Your task to perform on an android device: add a label to a message in the gmail app Image 0: 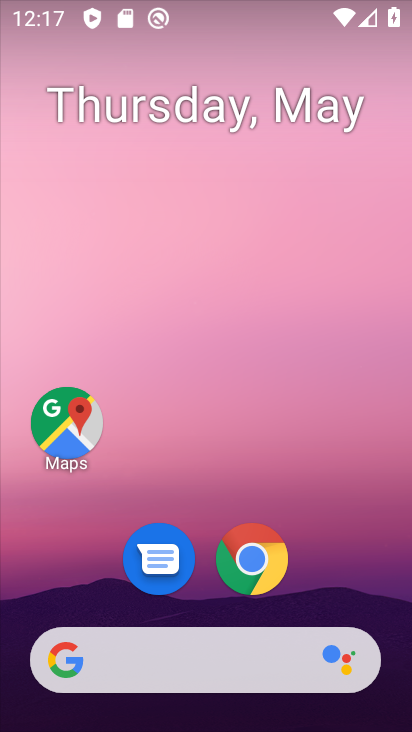
Step 0: drag from (393, 612) to (328, 129)
Your task to perform on an android device: add a label to a message in the gmail app Image 1: 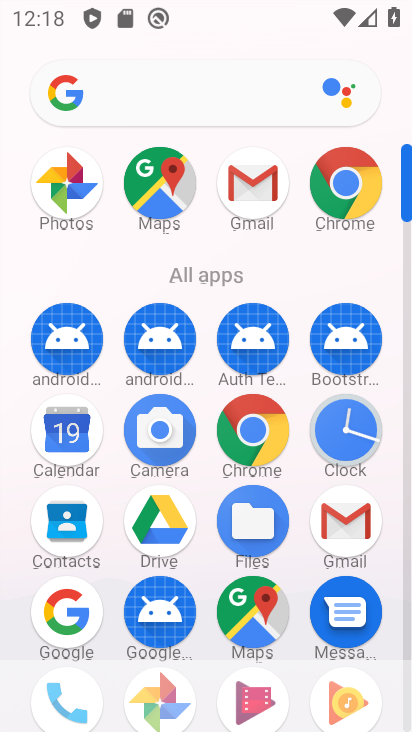
Step 1: click (245, 204)
Your task to perform on an android device: add a label to a message in the gmail app Image 2: 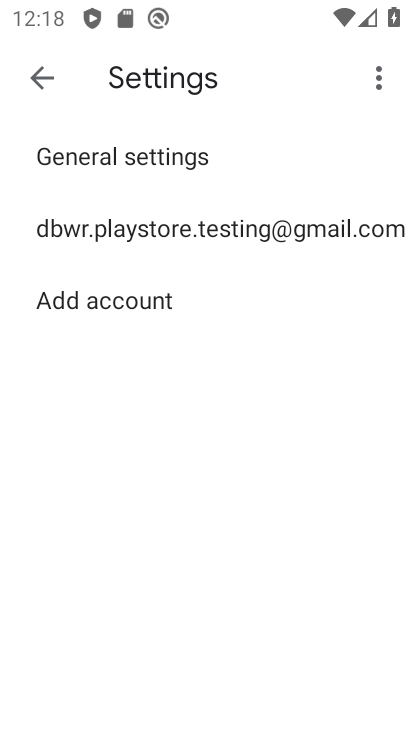
Step 2: click (51, 82)
Your task to perform on an android device: add a label to a message in the gmail app Image 3: 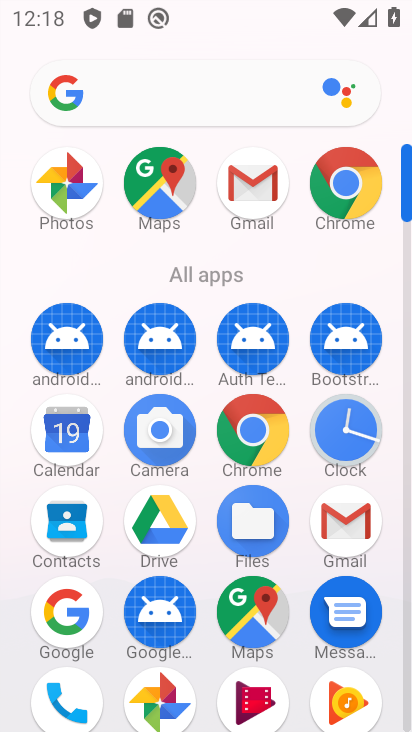
Step 3: click (51, 82)
Your task to perform on an android device: add a label to a message in the gmail app Image 4: 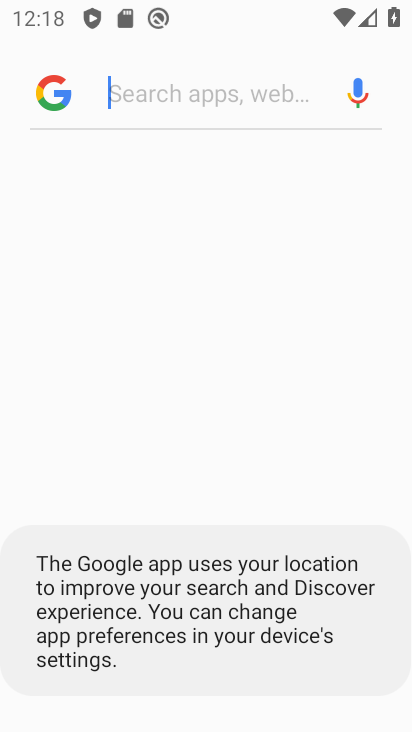
Step 4: click (244, 195)
Your task to perform on an android device: add a label to a message in the gmail app Image 5: 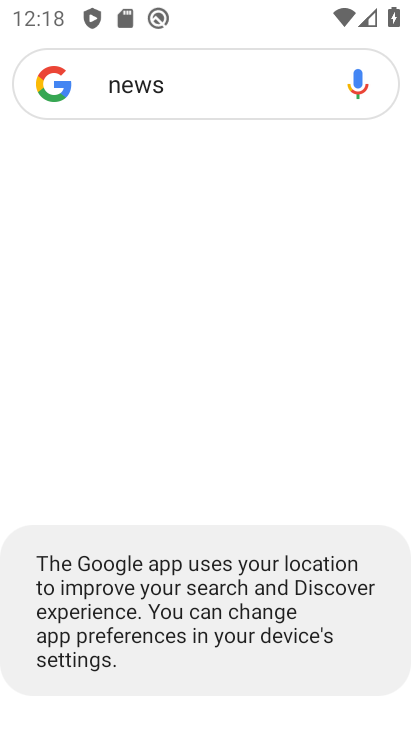
Step 5: press home button
Your task to perform on an android device: add a label to a message in the gmail app Image 6: 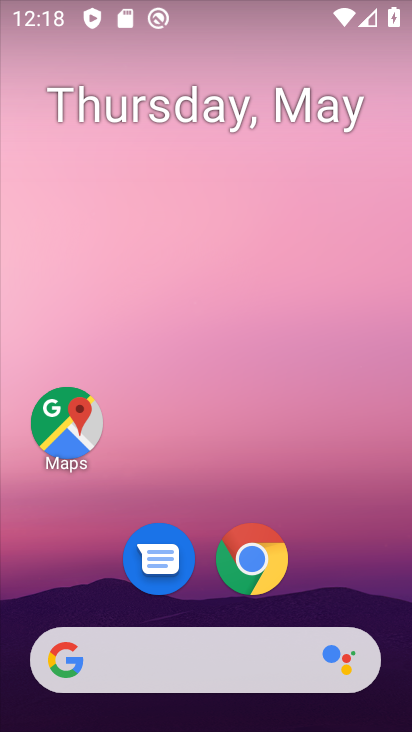
Step 6: drag from (255, 387) to (220, 6)
Your task to perform on an android device: add a label to a message in the gmail app Image 7: 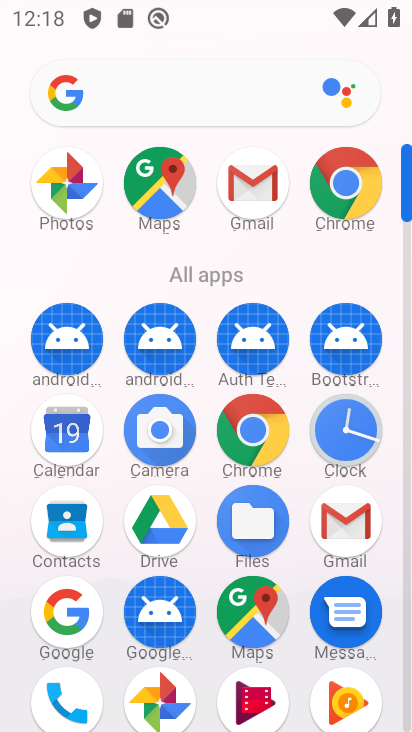
Step 7: click (236, 165)
Your task to perform on an android device: add a label to a message in the gmail app Image 8: 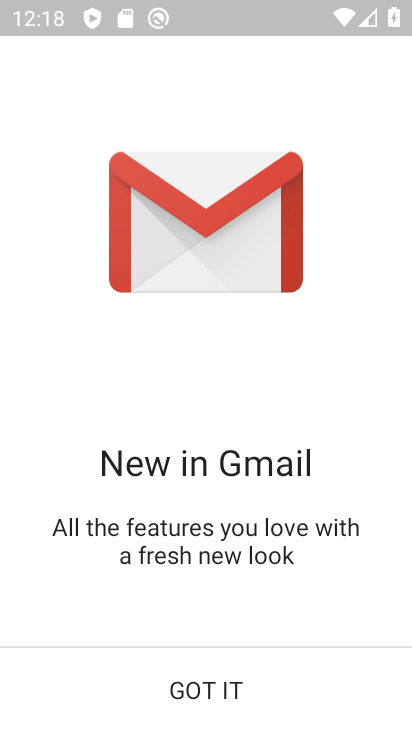
Step 8: click (163, 700)
Your task to perform on an android device: add a label to a message in the gmail app Image 9: 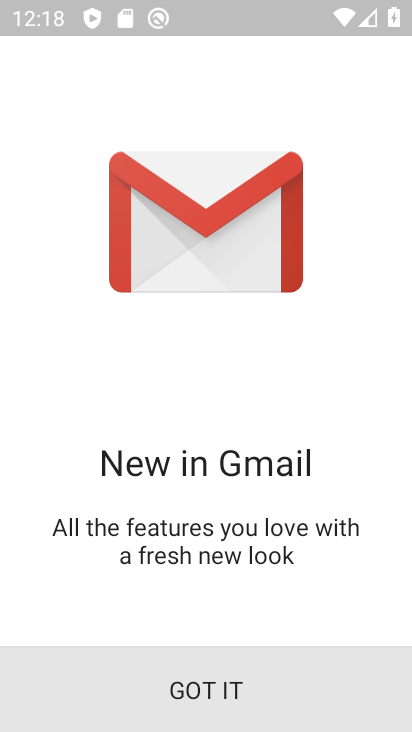
Step 9: click (163, 687)
Your task to perform on an android device: add a label to a message in the gmail app Image 10: 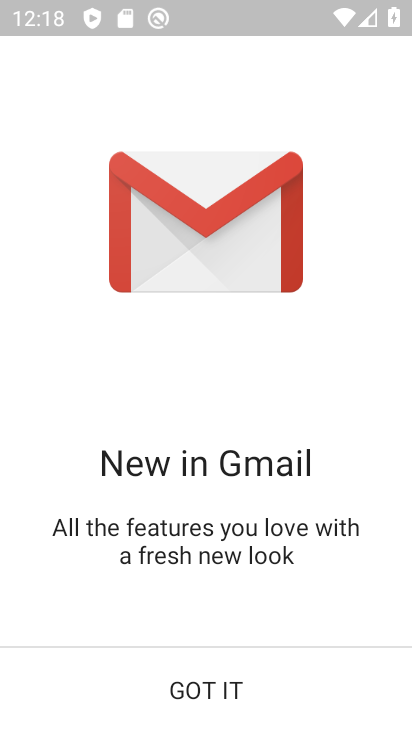
Step 10: click (163, 687)
Your task to perform on an android device: add a label to a message in the gmail app Image 11: 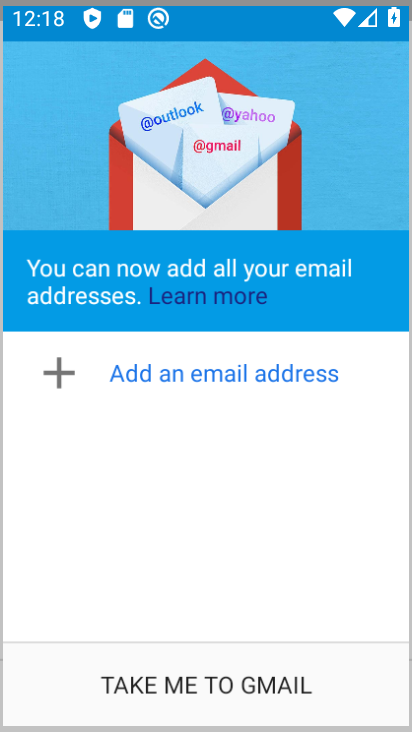
Step 11: click (163, 687)
Your task to perform on an android device: add a label to a message in the gmail app Image 12: 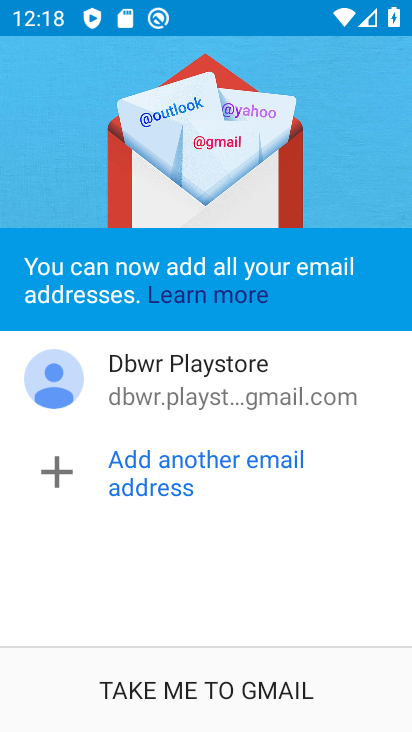
Step 12: click (163, 687)
Your task to perform on an android device: add a label to a message in the gmail app Image 13: 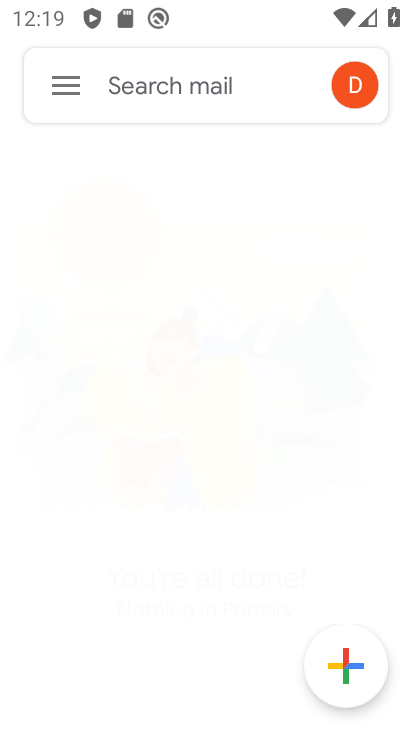
Step 13: click (64, 92)
Your task to perform on an android device: add a label to a message in the gmail app Image 14: 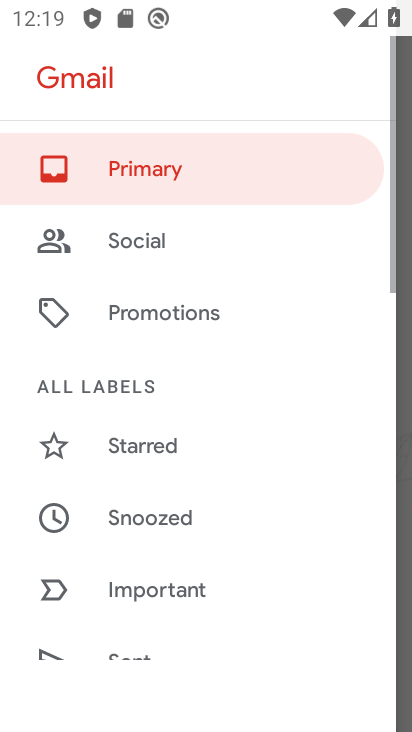
Step 14: task complete